Your task to perform on an android device: Do I have any events today? Image 0: 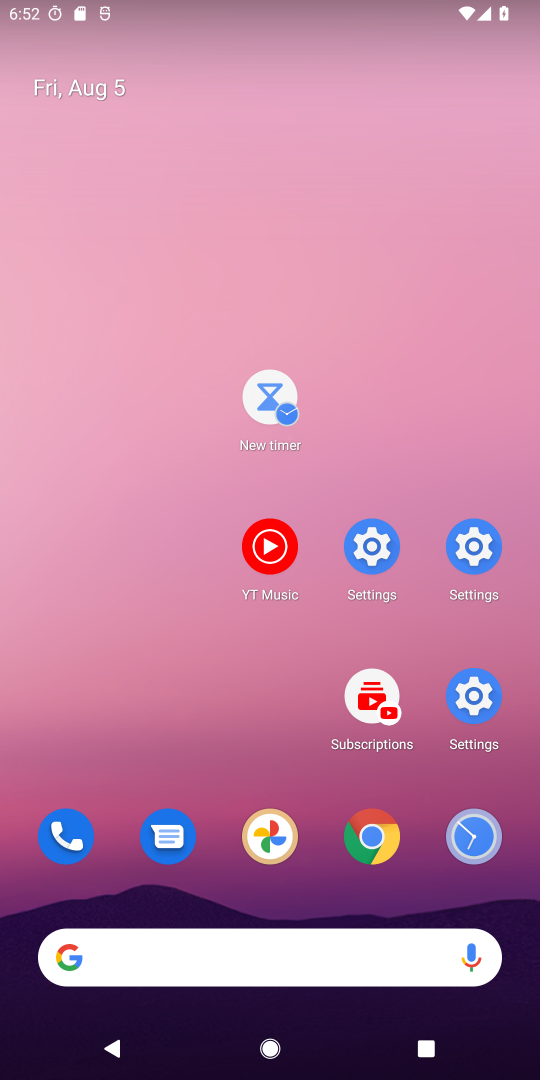
Step 0: drag from (321, 824) to (209, 229)
Your task to perform on an android device: Do I have any events today? Image 1: 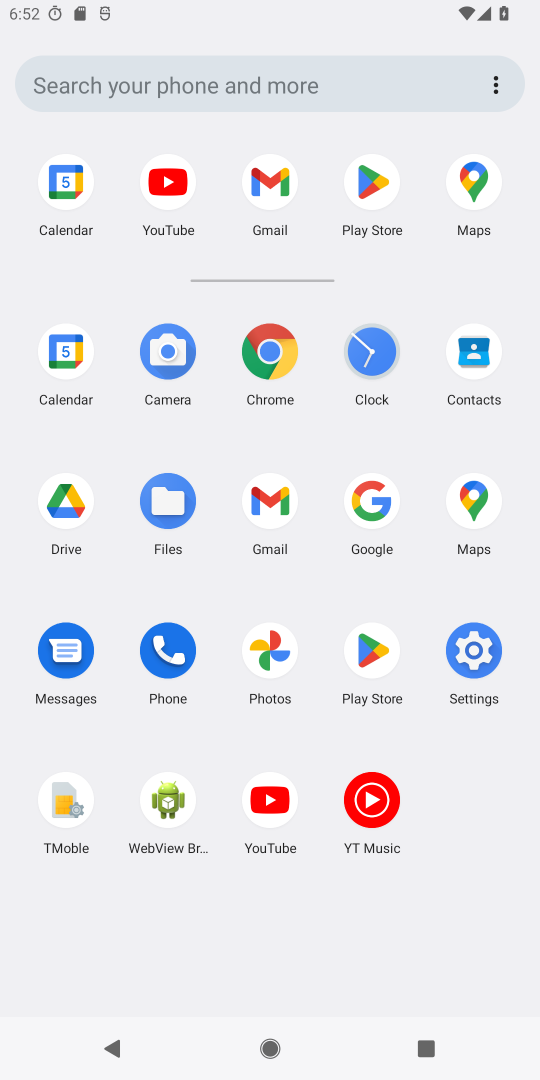
Step 1: drag from (294, 698) to (237, 117)
Your task to perform on an android device: Do I have any events today? Image 2: 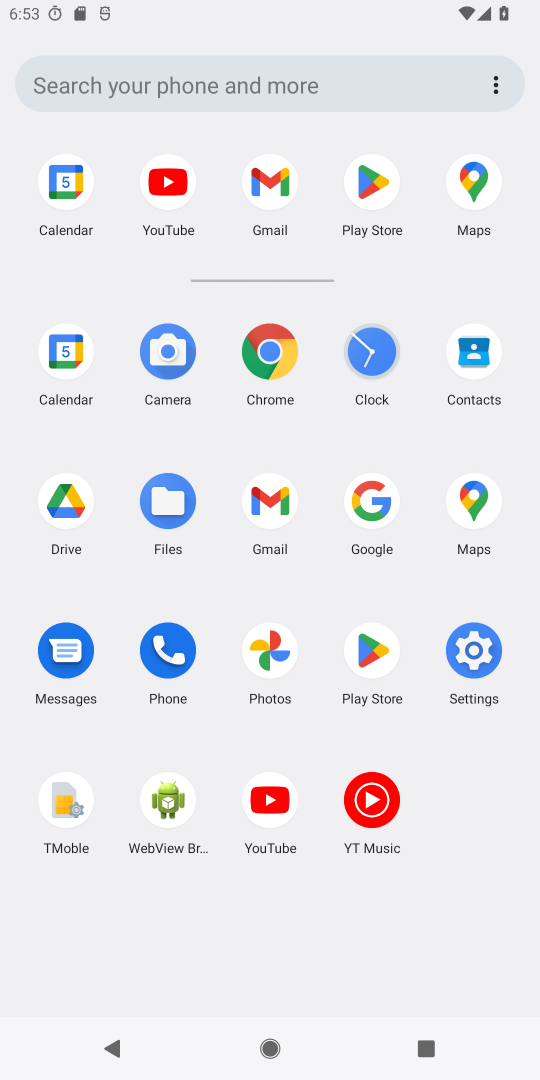
Step 2: click (75, 336)
Your task to perform on an android device: Do I have any events today? Image 3: 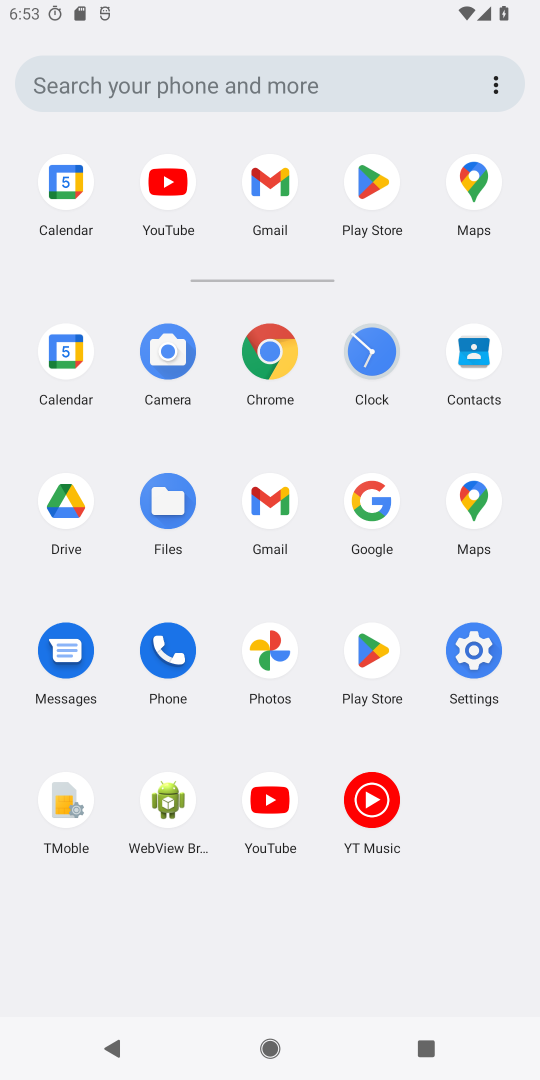
Step 3: click (65, 339)
Your task to perform on an android device: Do I have any events today? Image 4: 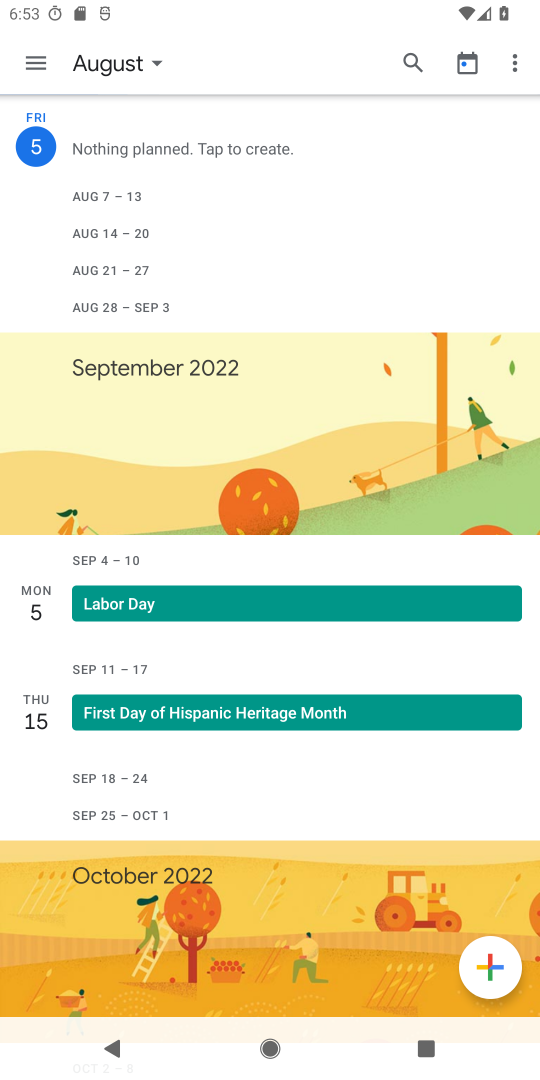
Step 4: click (150, 63)
Your task to perform on an android device: Do I have any events today? Image 5: 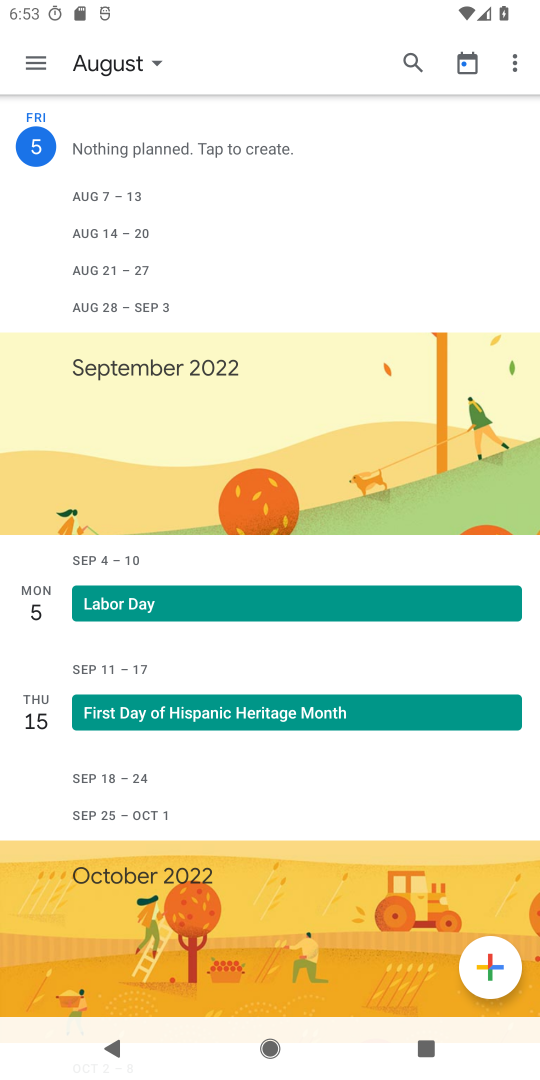
Step 5: click (150, 63)
Your task to perform on an android device: Do I have any events today? Image 6: 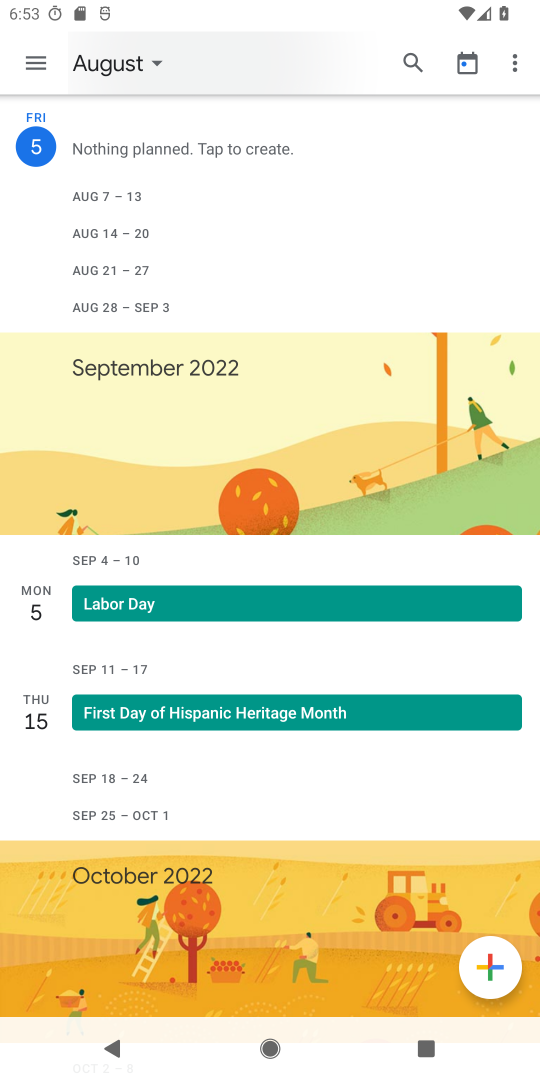
Step 6: click (150, 63)
Your task to perform on an android device: Do I have any events today? Image 7: 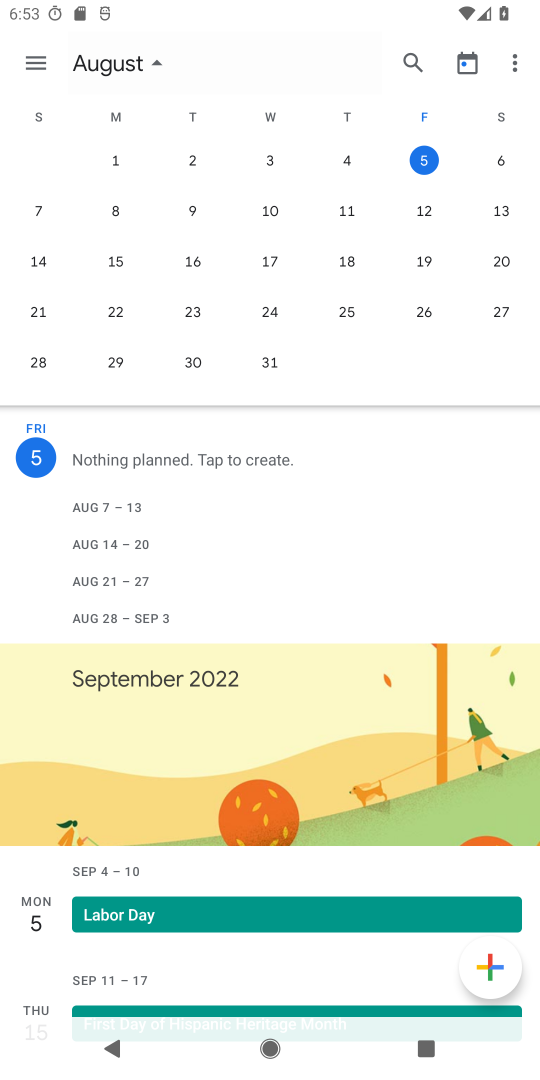
Step 7: click (150, 63)
Your task to perform on an android device: Do I have any events today? Image 8: 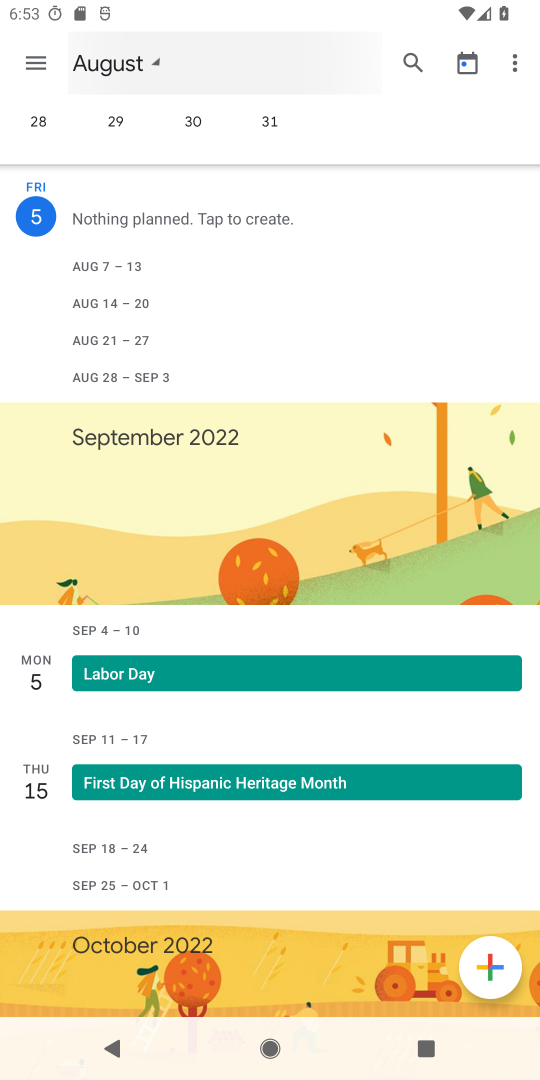
Step 8: click (148, 62)
Your task to perform on an android device: Do I have any events today? Image 9: 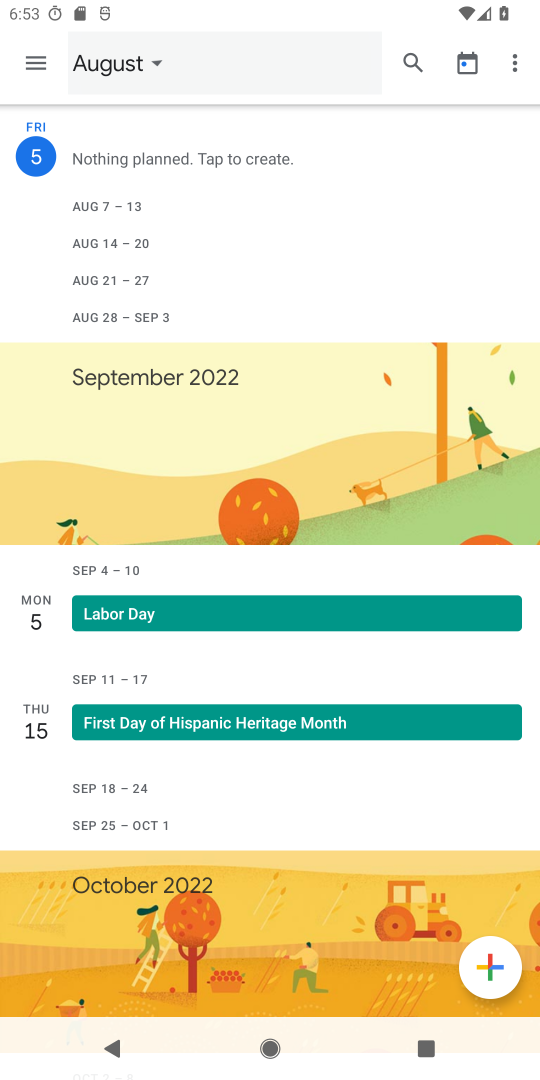
Step 9: click (148, 63)
Your task to perform on an android device: Do I have any events today? Image 10: 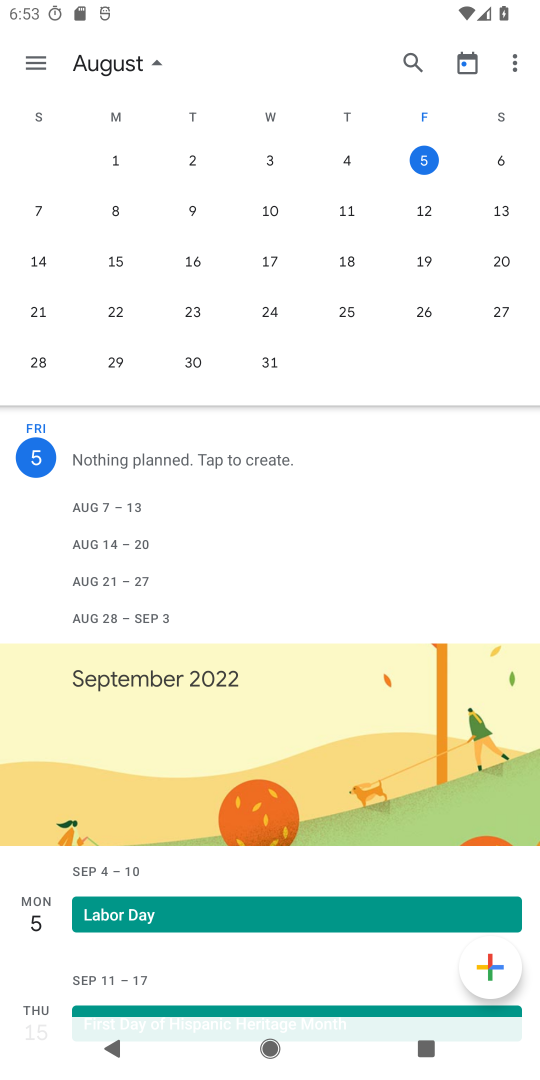
Step 10: click (155, 71)
Your task to perform on an android device: Do I have any events today? Image 11: 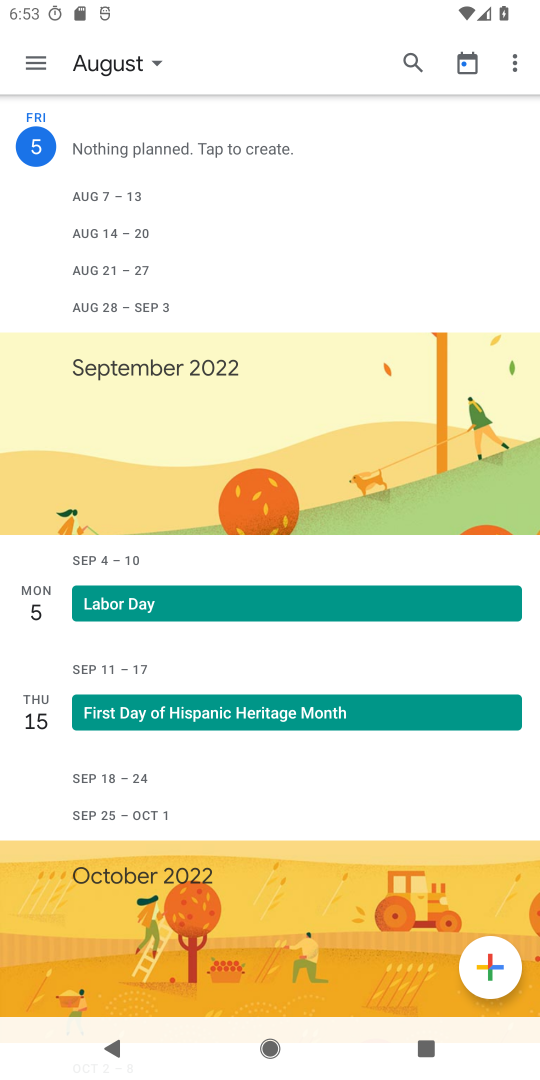
Step 11: click (147, 60)
Your task to perform on an android device: Do I have any events today? Image 12: 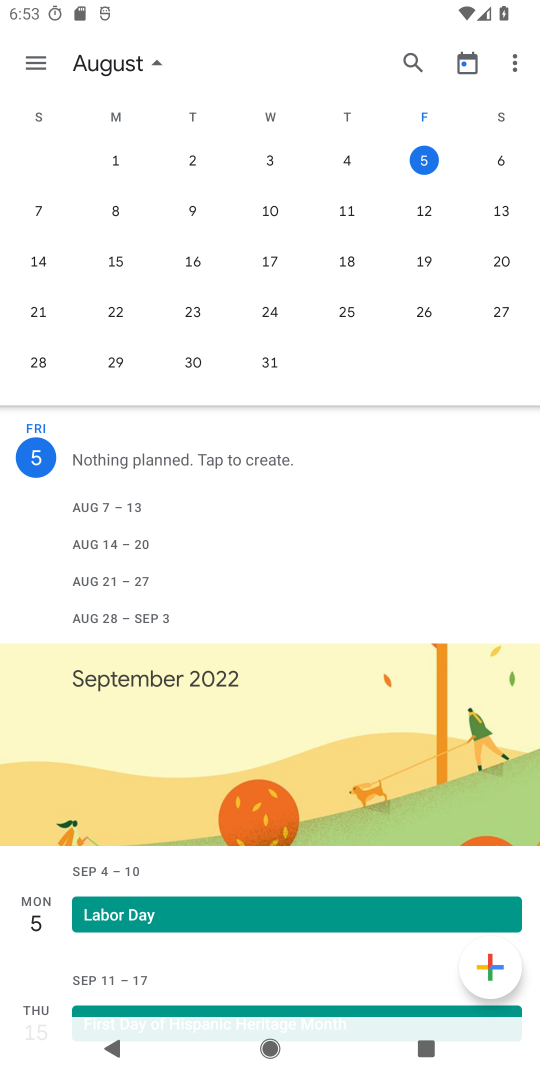
Step 12: click (429, 155)
Your task to perform on an android device: Do I have any events today? Image 13: 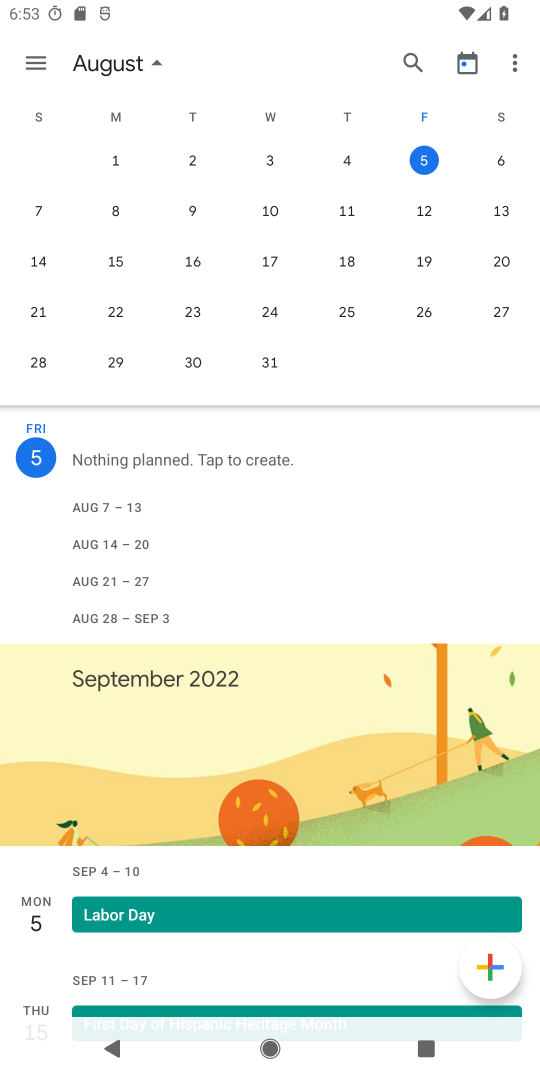
Step 13: task complete